Your task to perform on an android device: turn off airplane mode Image 0: 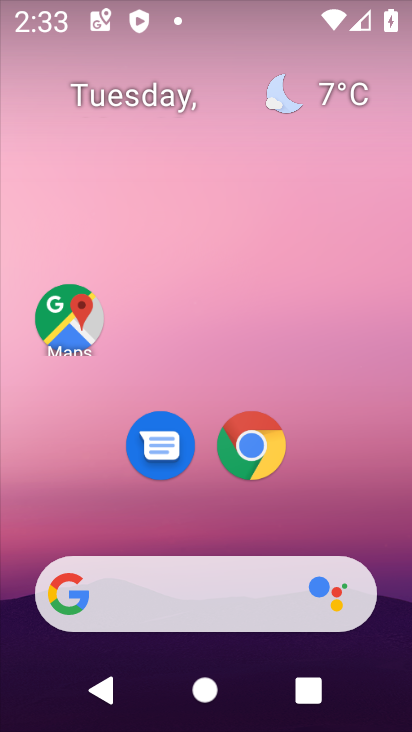
Step 0: drag from (179, 553) to (316, 17)
Your task to perform on an android device: turn off airplane mode Image 1: 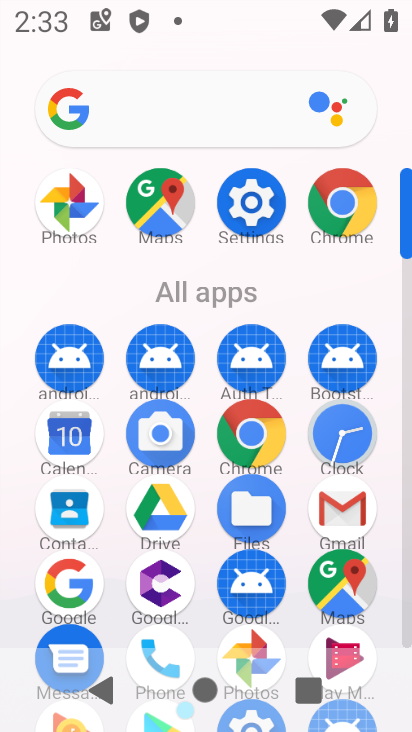
Step 1: drag from (139, 647) to (202, 371)
Your task to perform on an android device: turn off airplane mode Image 2: 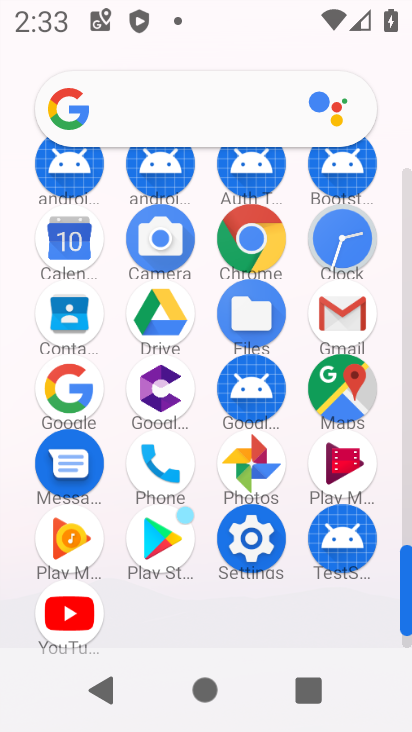
Step 2: click (270, 543)
Your task to perform on an android device: turn off airplane mode Image 3: 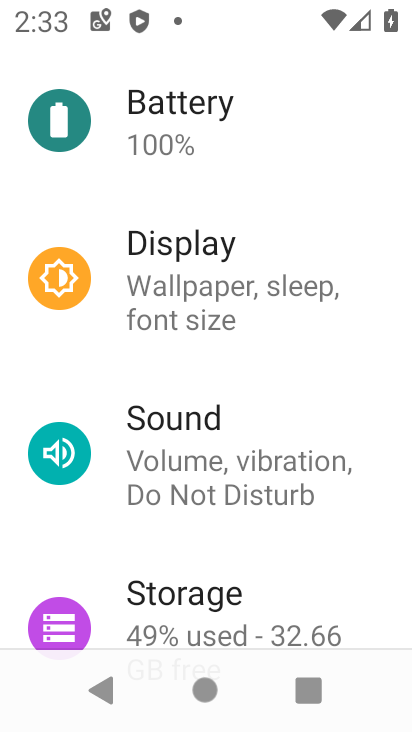
Step 3: drag from (266, 160) to (258, 620)
Your task to perform on an android device: turn off airplane mode Image 4: 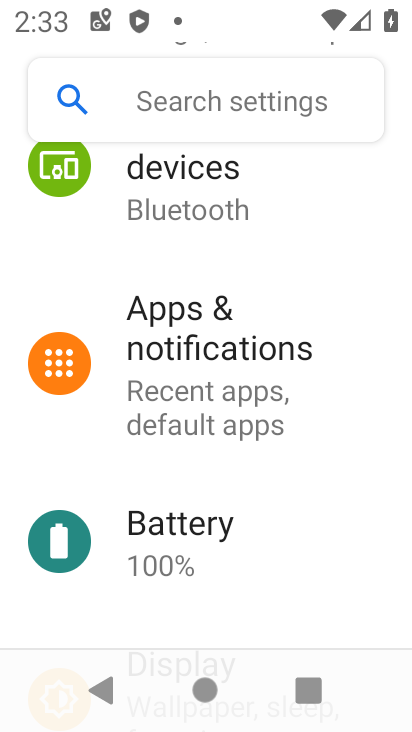
Step 4: drag from (217, 180) to (214, 680)
Your task to perform on an android device: turn off airplane mode Image 5: 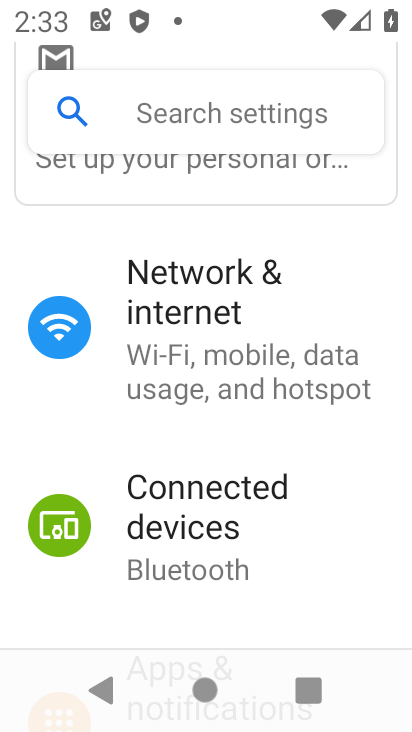
Step 5: click (253, 353)
Your task to perform on an android device: turn off airplane mode Image 6: 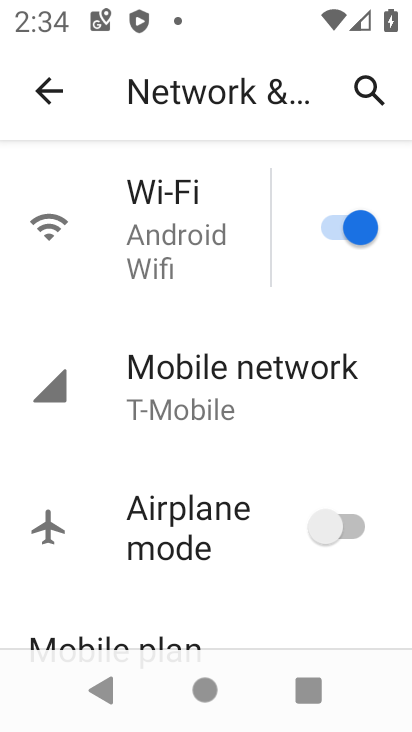
Step 6: task complete